Your task to perform on an android device: Toggle the flashlight Image 0: 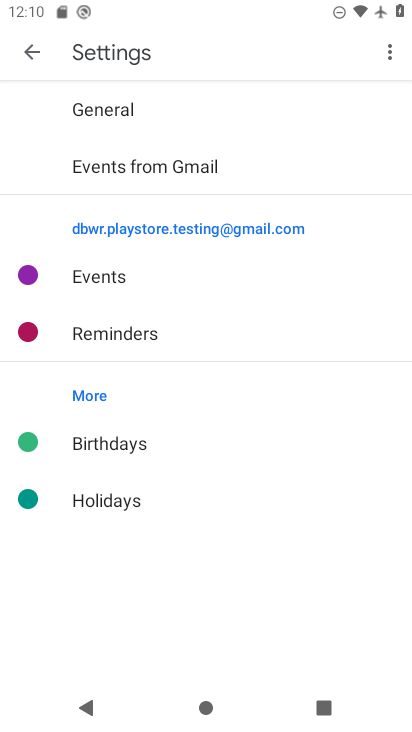
Step 0: press home button
Your task to perform on an android device: Toggle the flashlight Image 1: 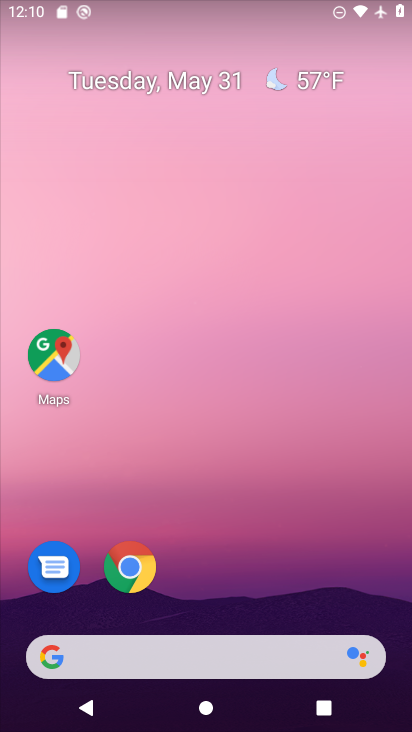
Step 1: drag from (212, 586) to (199, 209)
Your task to perform on an android device: Toggle the flashlight Image 2: 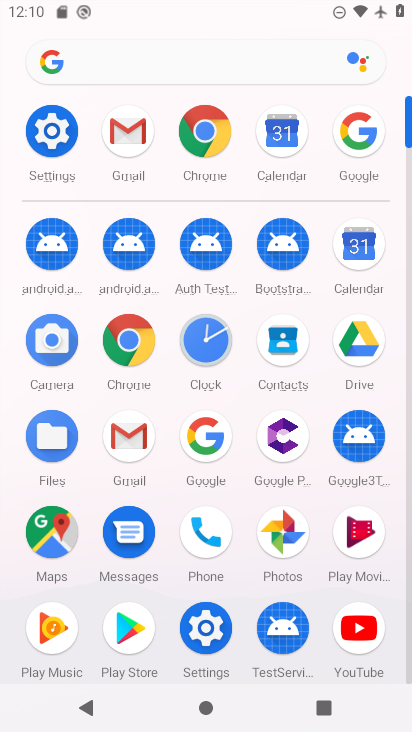
Step 2: click (56, 138)
Your task to perform on an android device: Toggle the flashlight Image 3: 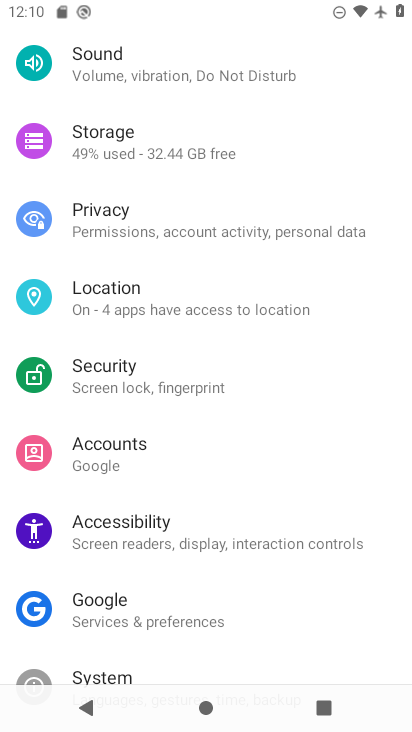
Step 3: task complete